Your task to perform on an android device: Set the phone to "Do not disturb". Image 0: 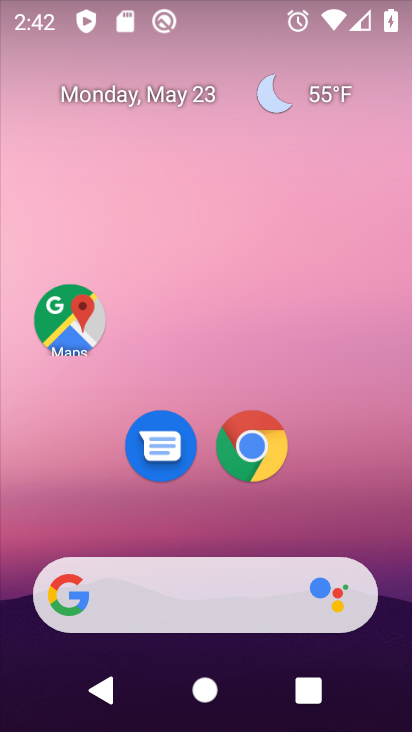
Step 0: drag from (168, 359) to (168, 106)
Your task to perform on an android device: Set the phone to "Do not disturb". Image 1: 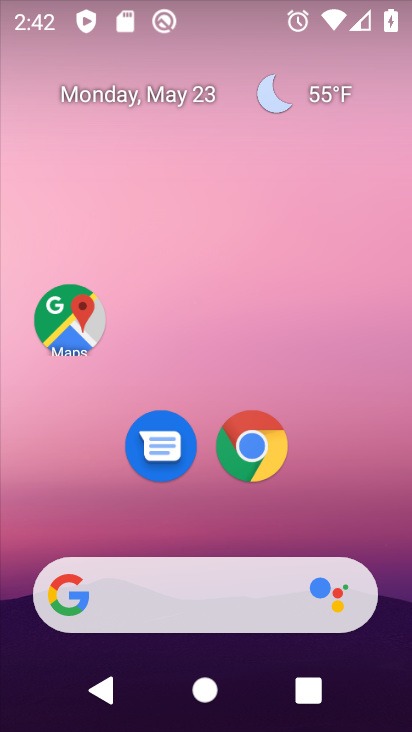
Step 1: drag from (192, 526) to (221, 126)
Your task to perform on an android device: Set the phone to "Do not disturb". Image 2: 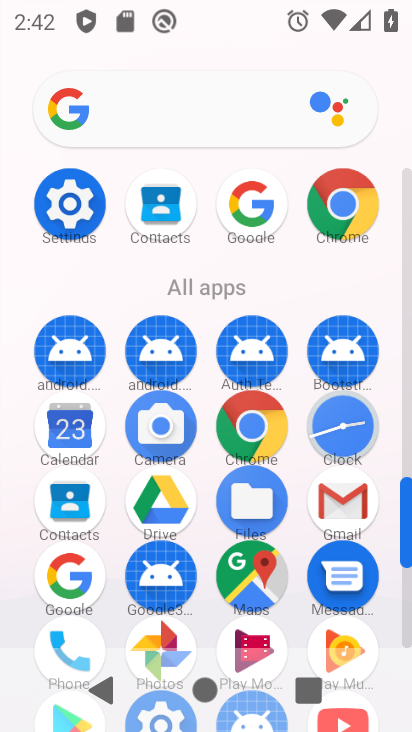
Step 2: click (89, 214)
Your task to perform on an android device: Set the phone to "Do not disturb". Image 3: 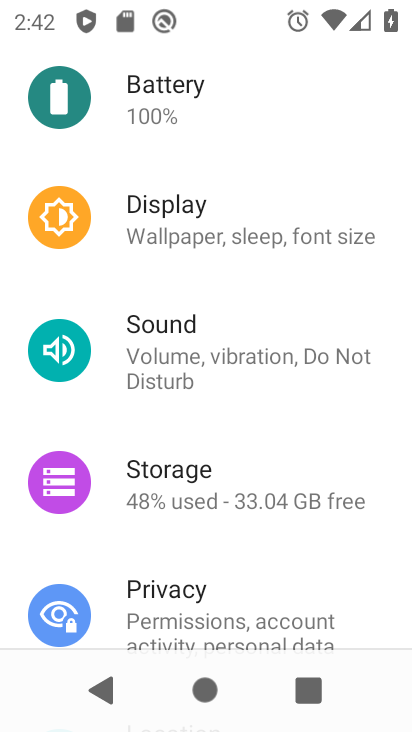
Step 3: click (183, 362)
Your task to perform on an android device: Set the phone to "Do not disturb". Image 4: 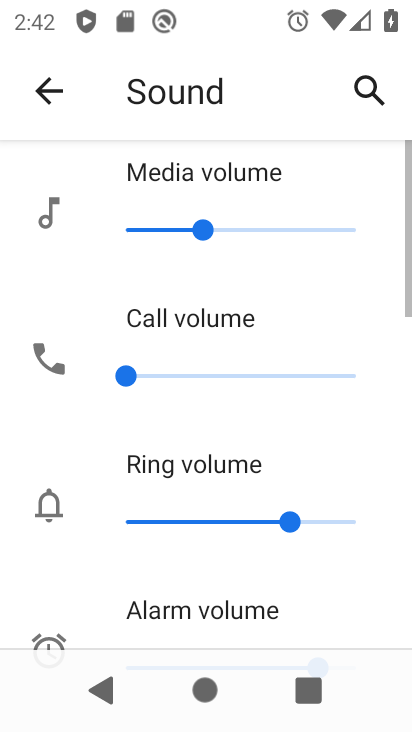
Step 4: drag from (193, 515) to (184, 261)
Your task to perform on an android device: Set the phone to "Do not disturb". Image 5: 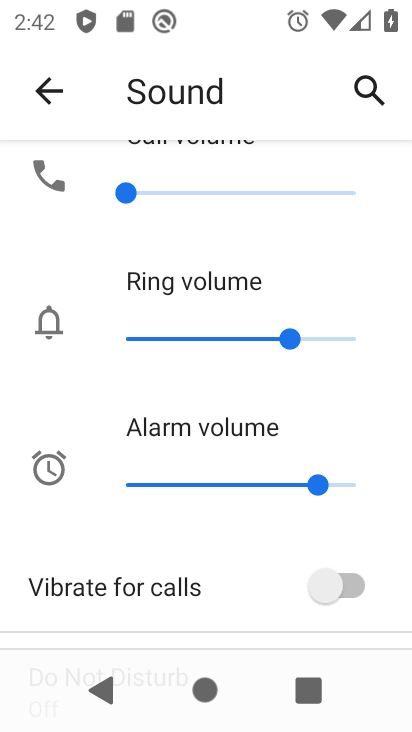
Step 5: drag from (230, 566) to (238, 280)
Your task to perform on an android device: Set the phone to "Do not disturb". Image 6: 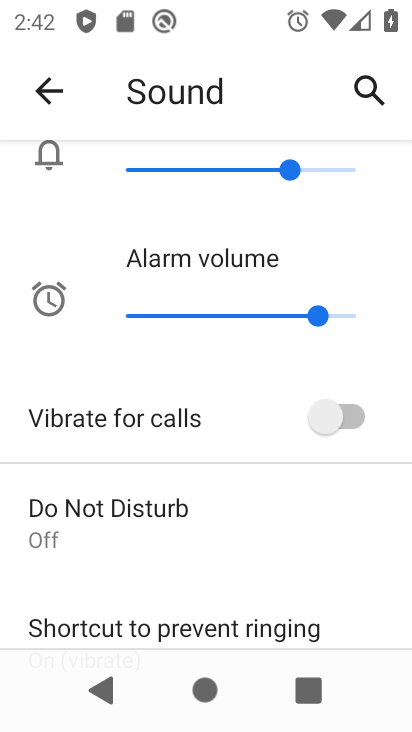
Step 6: click (166, 515)
Your task to perform on an android device: Set the phone to "Do not disturb". Image 7: 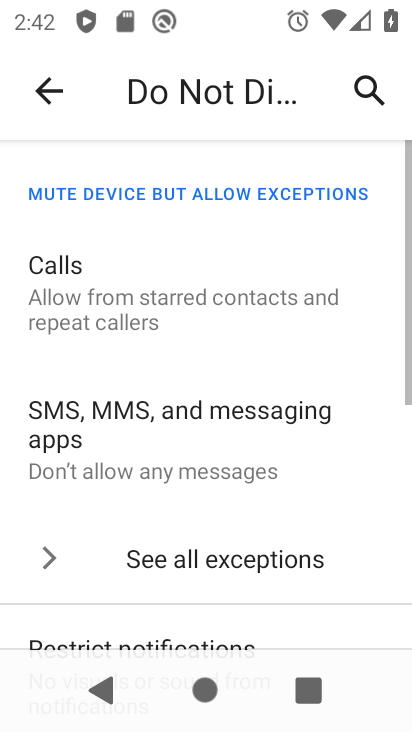
Step 7: drag from (207, 570) to (219, 268)
Your task to perform on an android device: Set the phone to "Do not disturb". Image 8: 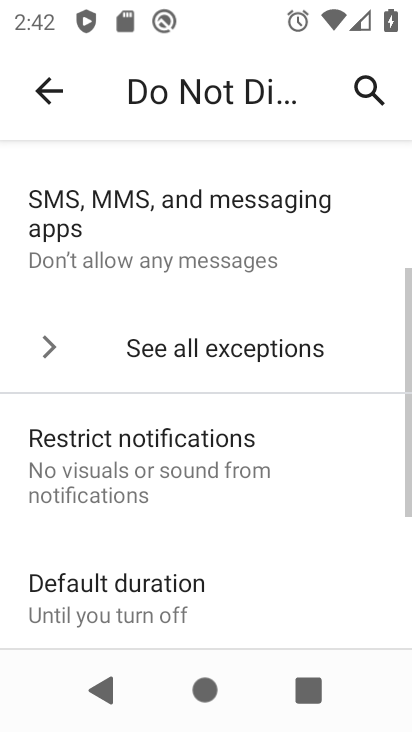
Step 8: drag from (247, 624) to (253, 367)
Your task to perform on an android device: Set the phone to "Do not disturb". Image 9: 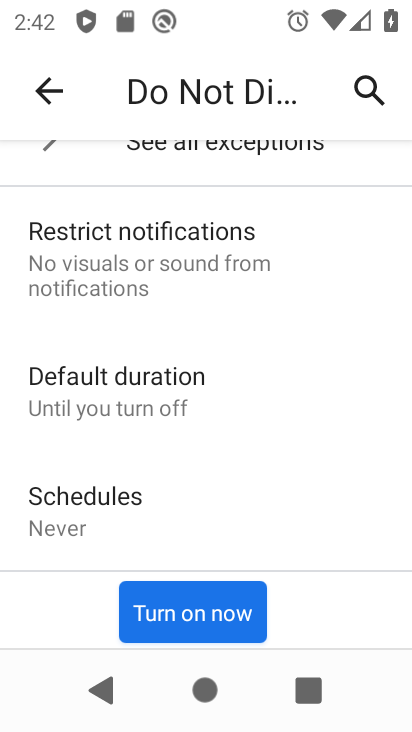
Step 9: click (222, 616)
Your task to perform on an android device: Set the phone to "Do not disturb". Image 10: 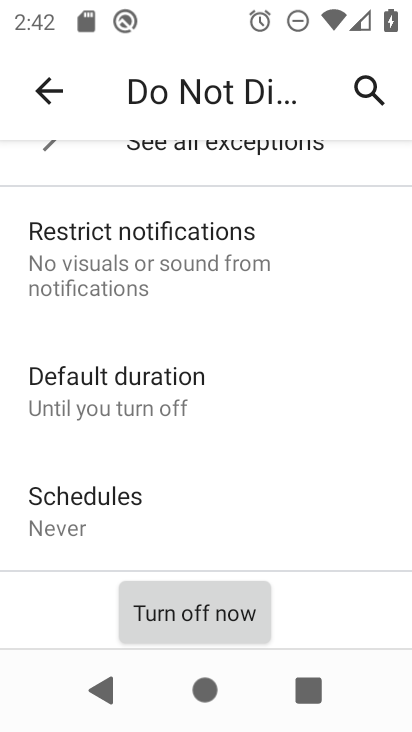
Step 10: task complete